Your task to perform on an android device: Open the phone app and click the voicemail tab. Image 0: 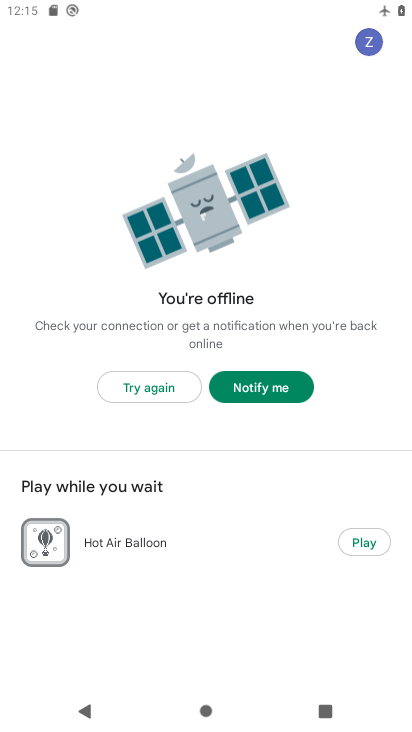
Step 0: press home button
Your task to perform on an android device: Open the phone app and click the voicemail tab. Image 1: 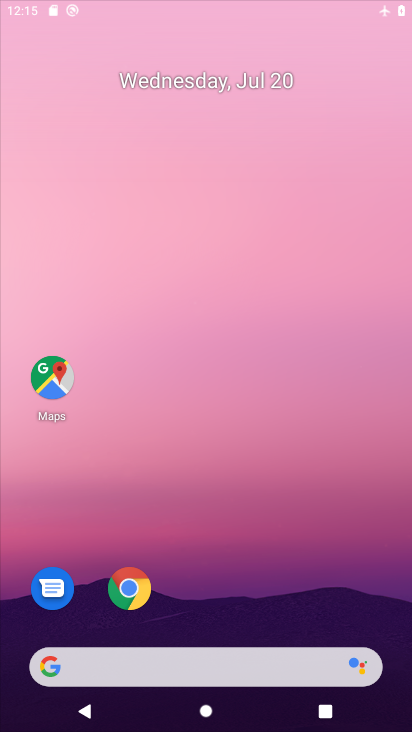
Step 1: drag from (206, 686) to (215, 311)
Your task to perform on an android device: Open the phone app and click the voicemail tab. Image 2: 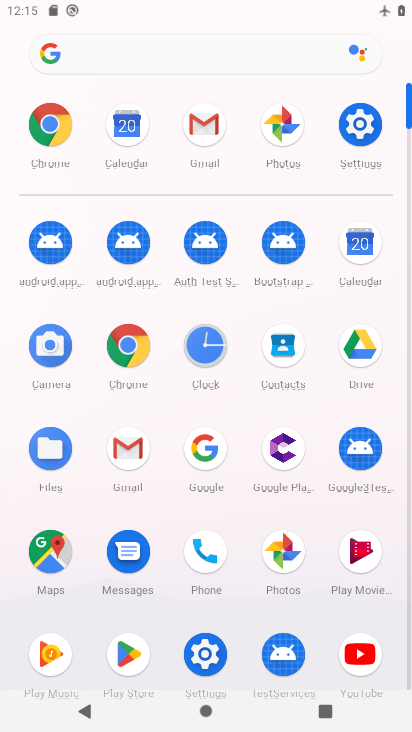
Step 2: click (208, 551)
Your task to perform on an android device: Open the phone app and click the voicemail tab. Image 3: 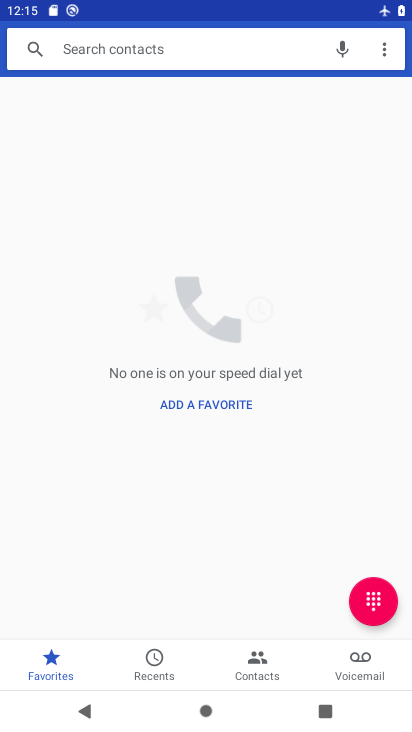
Step 3: click (363, 649)
Your task to perform on an android device: Open the phone app and click the voicemail tab. Image 4: 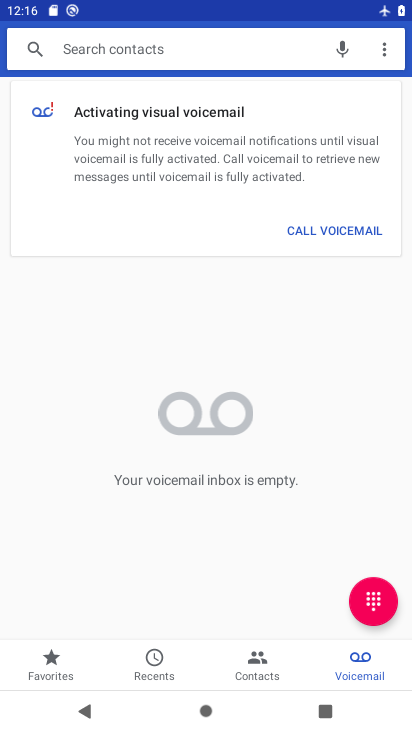
Step 4: task complete